Your task to perform on an android device: Open maps Image 0: 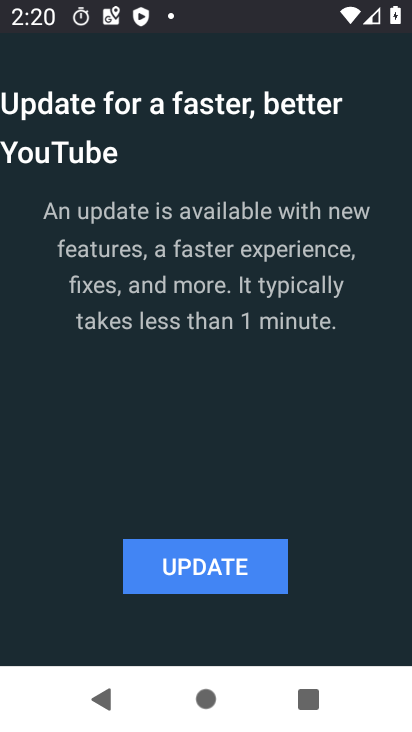
Step 0: press home button
Your task to perform on an android device: Open maps Image 1: 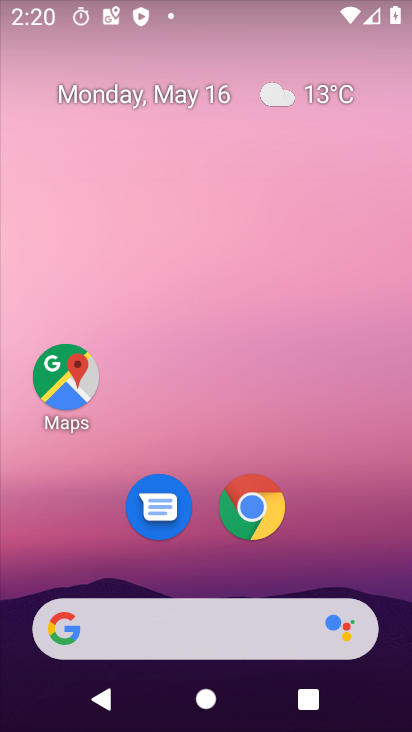
Step 1: drag from (353, 542) to (352, 138)
Your task to perform on an android device: Open maps Image 2: 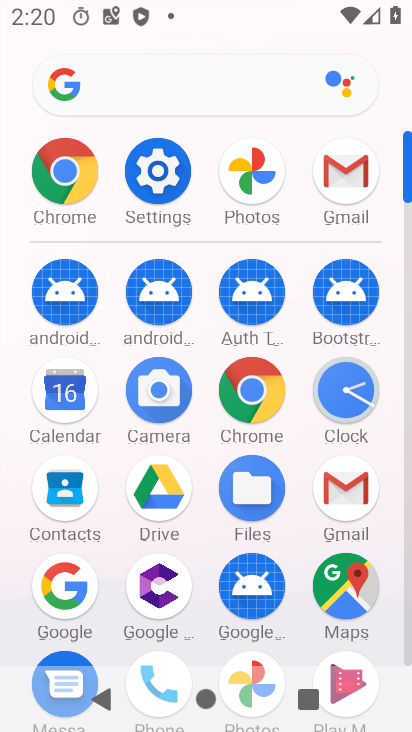
Step 2: click (358, 611)
Your task to perform on an android device: Open maps Image 3: 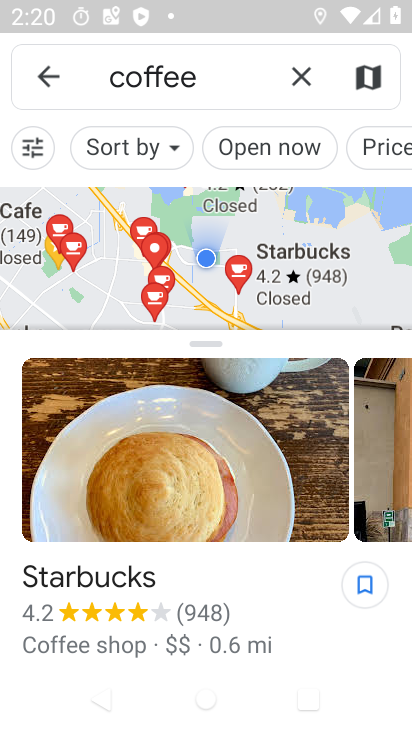
Step 3: task complete